Your task to perform on an android device: Go to Amazon Image 0: 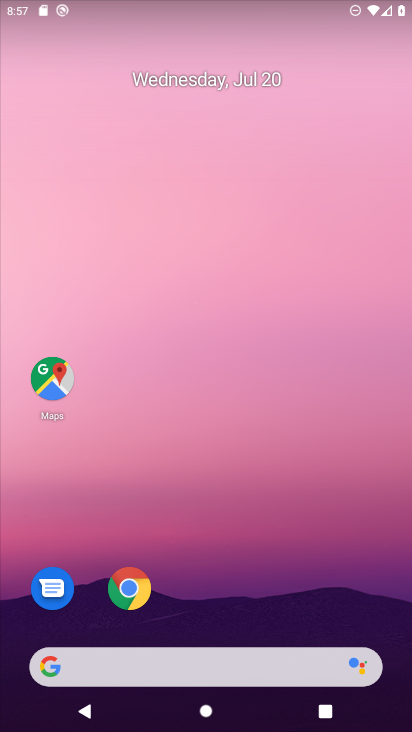
Step 0: click (128, 594)
Your task to perform on an android device: Go to Amazon Image 1: 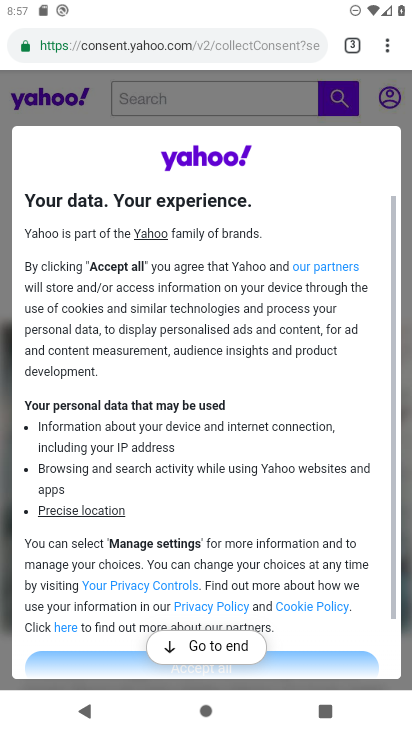
Step 1: click (358, 40)
Your task to perform on an android device: Go to Amazon Image 2: 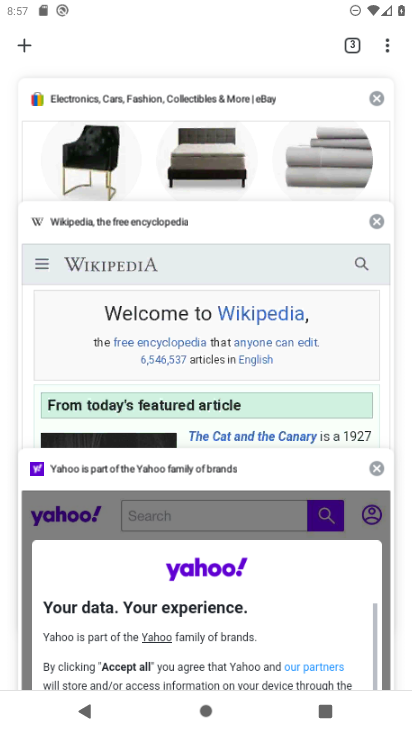
Step 2: click (35, 44)
Your task to perform on an android device: Go to Amazon Image 3: 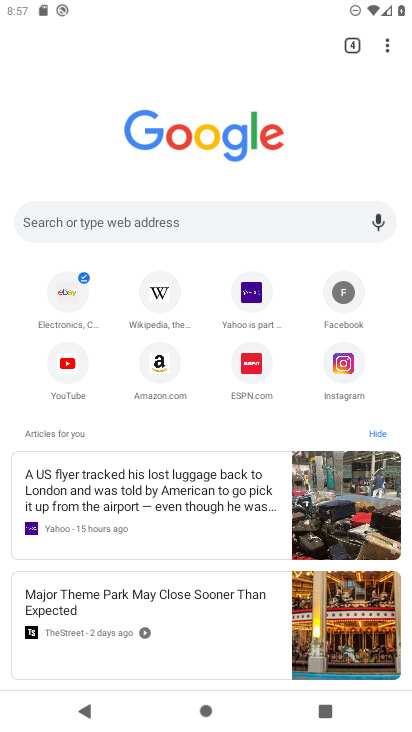
Step 3: click (162, 362)
Your task to perform on an android device: Go to Amazon Image 4: 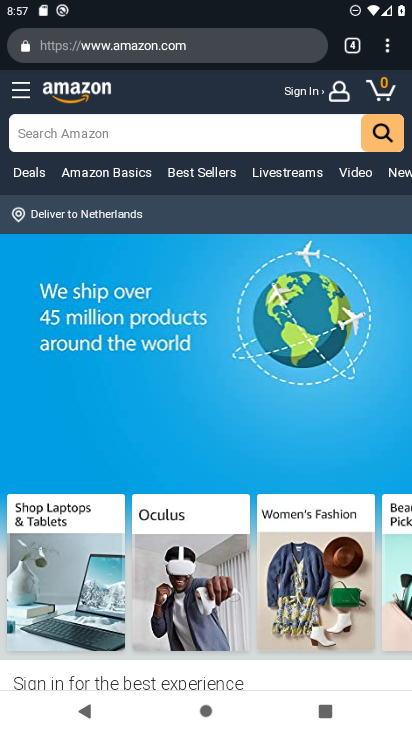
Step 4: task complete